Your task to perform on an android device: read, delete, or share a saved page in the chrome app Image 0: 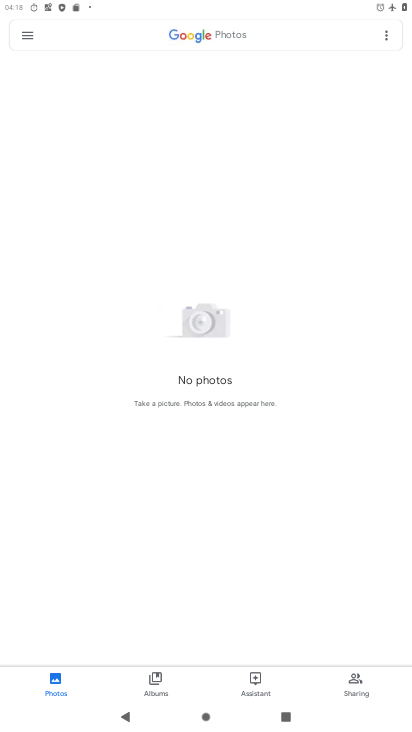
Step 0: press home button
Your task to perform on an android device: read, delete, or share a saved page in the chrome app Image 1: 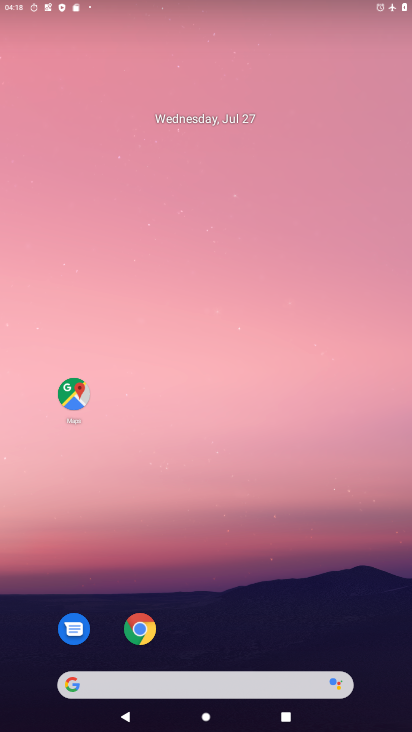
Step 1: drag from (329, 590) to (266, 104)
Your task to perform on an android device: read, delete, or share a saved page in the chrome app Image 2: 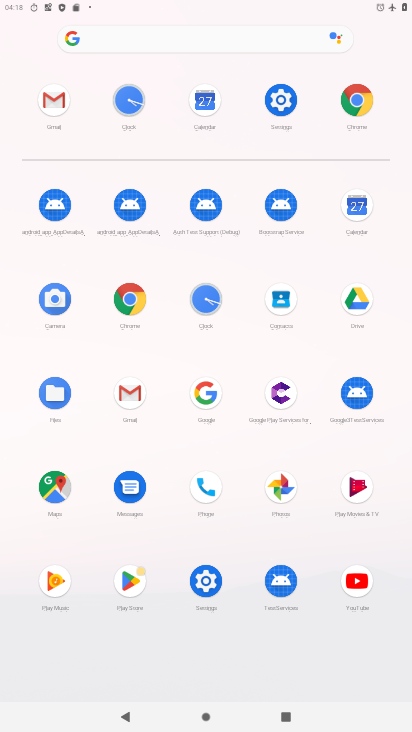
Step 2: click (131, 291)
Your task to perform on an android device: read, delete, or share a saved page in the chrome app Image 3: 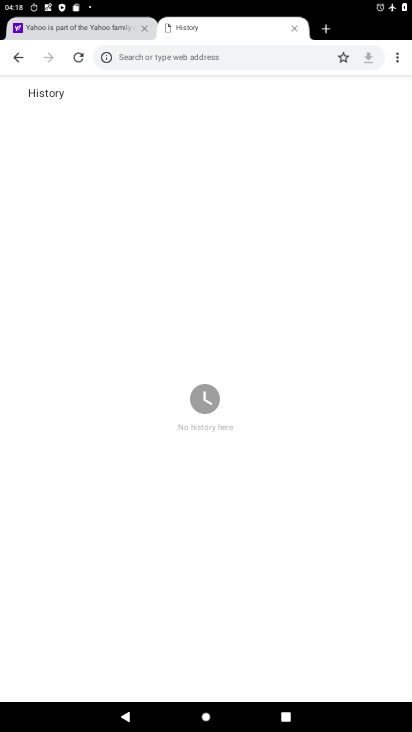
Step 3: task complete